Your task to perform on an android device: Open the calendar app, open the side menu, and click the "Day" option Image 0: 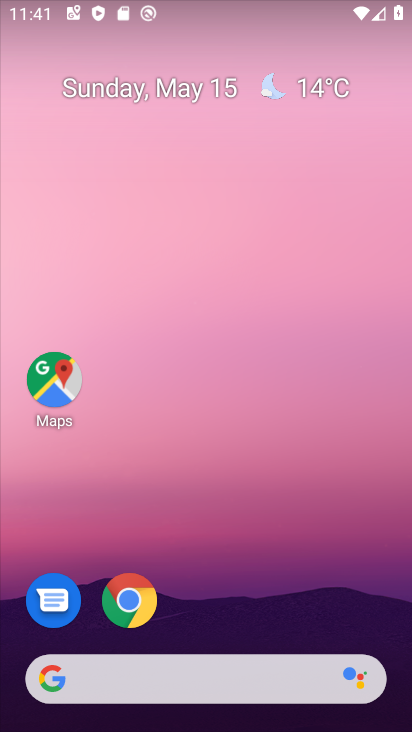
Step 0: drag from (386, 644) to (341, 137)
Your task to perform on an android device: Open the calendar app, open the side menu, and click the "Day" option Image 1: 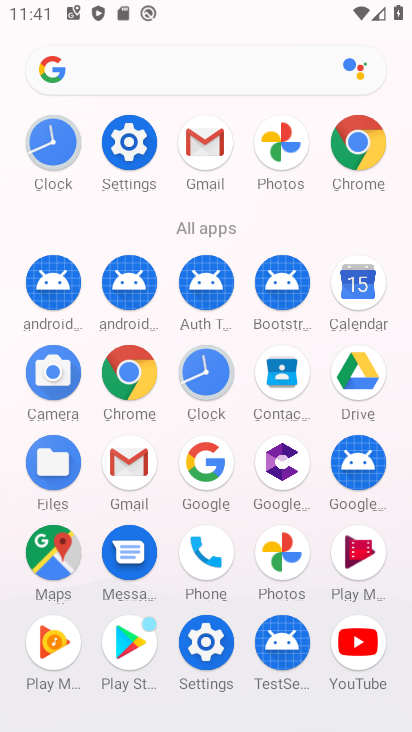
Step 1: click (356, 284)
Your task to perform on an android device: Open the calendar app, open the side menu, and click the "Day" option Image 2: 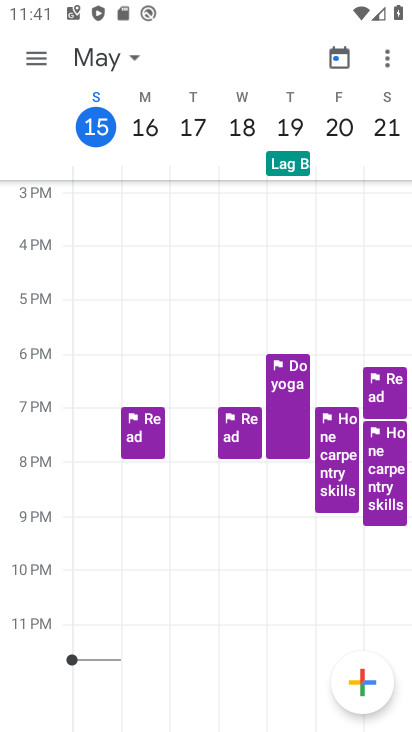
Step 2: click (37, 59)
Your task to perform on an android device: Open the calendar app, open the side menu, and click the "Day" option Image 3: 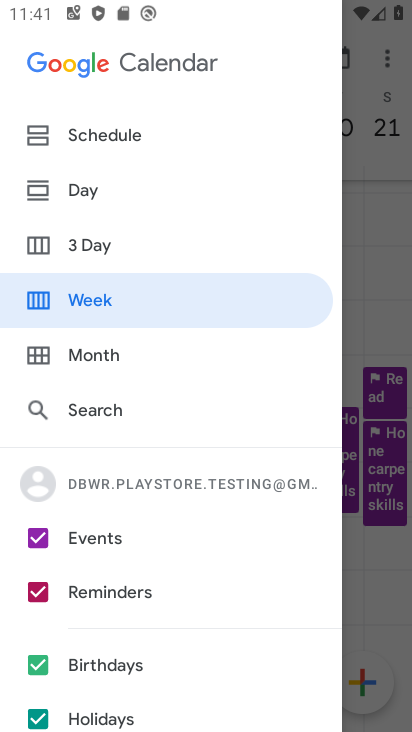
Step 3: click (80, 178)
Your task to perform on an android device: Open the calendar app, open the side menu, and click the "Day" option Image 4: 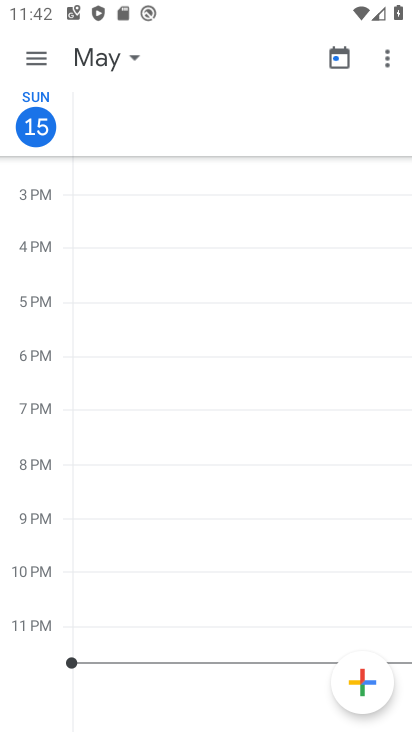
Step 4: task complete